Your task to perform on an android device: toggle location history Image 0: 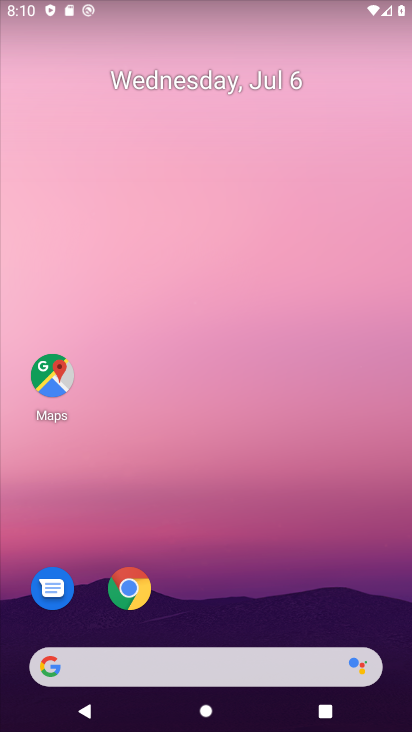
Step 0: drag from (269, 590) to (228, 17)
Your task to perform on an android device: toggle location history Image 1: 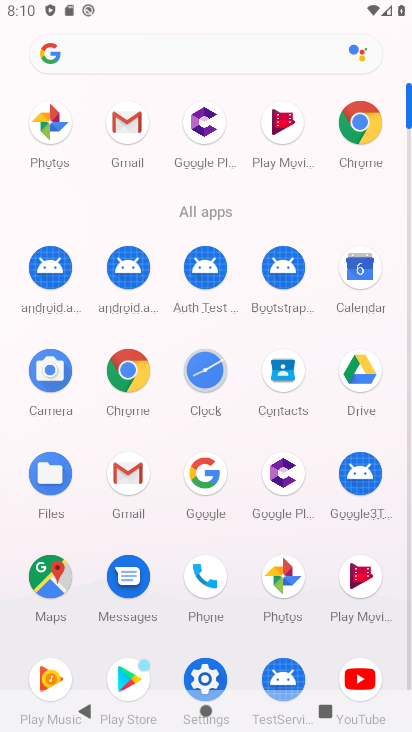
Step 1: click (51, 591)
Your task to perform on an android device: toggle location history Image 2: 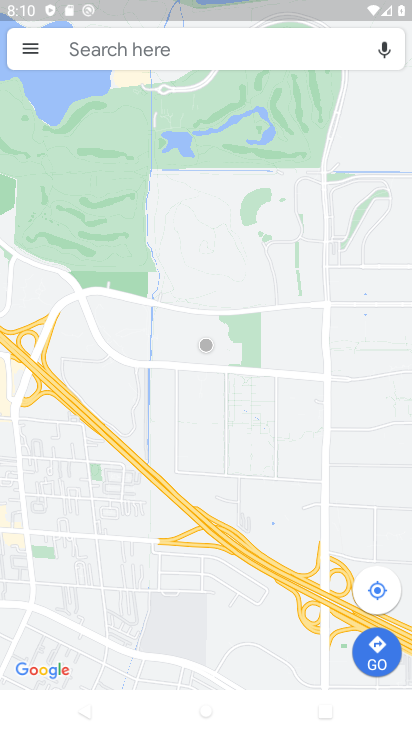
Step 2: click (24, 55)
Your task to perform on an android device: toggle location history Image 3: 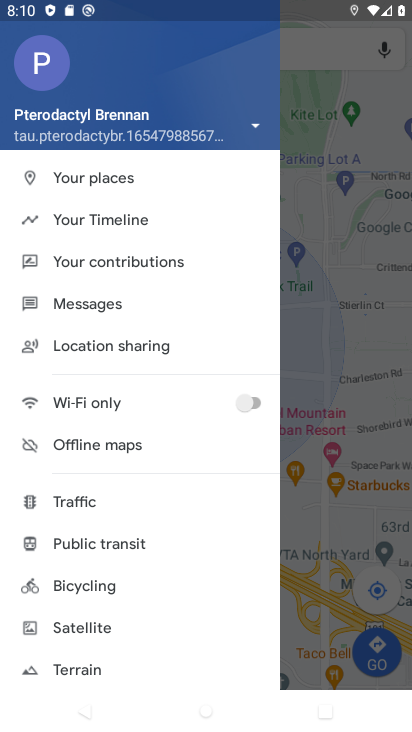
Step 3: click (106, 220)
Your task to perform on an android device: toggle location history Image 4: 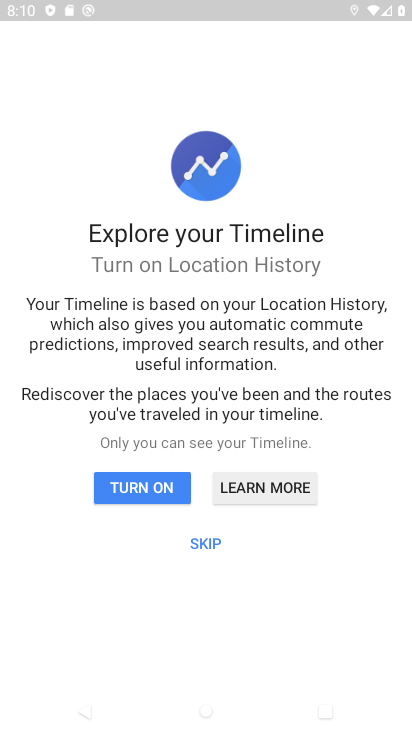
Step 4: click (159, 485)
Your task to perform on an android device: toggle location history Image 5: 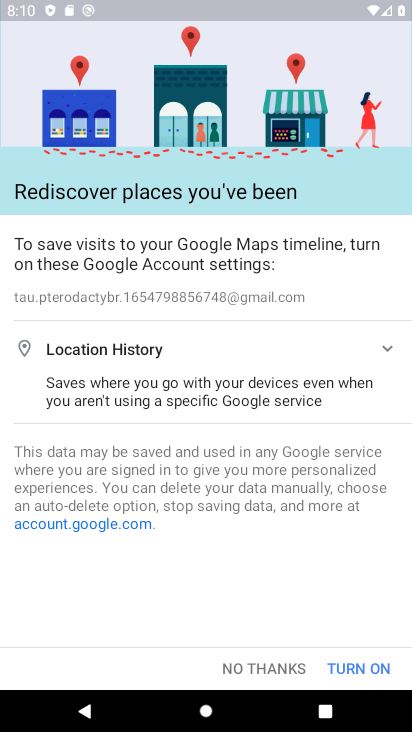
Step 5: click (372, 666)
Your task to perform on an android device: toggle location history Image 6: 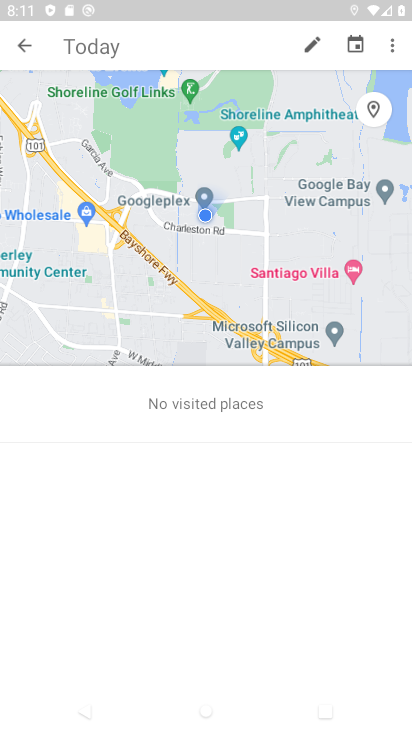
Step 6: task complete